Your task to perform on an android device: open a bookmark in the chrome app Image 0: 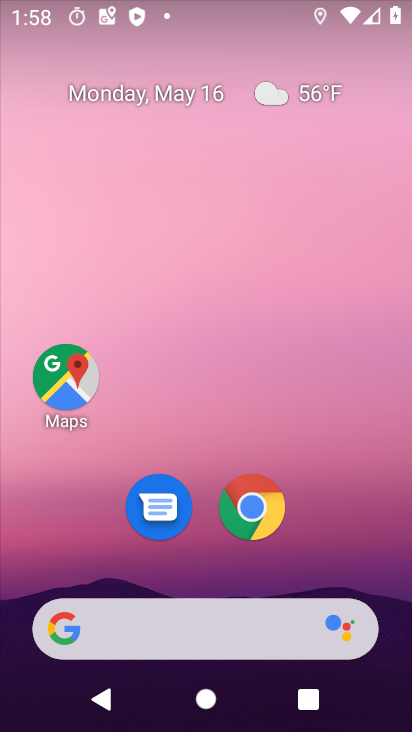
Step 0: click (257, 508)
Your task to perform on an android device: open a bookmark in the chrome app Image 1: 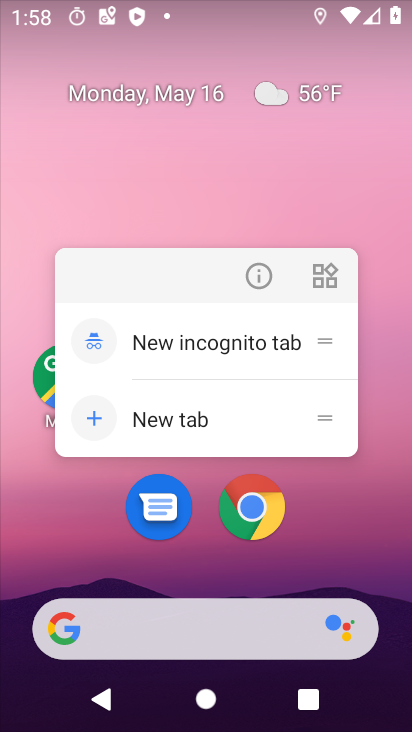
Step 1: click (257, 508)
Your task to perform on an android device: open a bookmark in the chrome app Image 2: 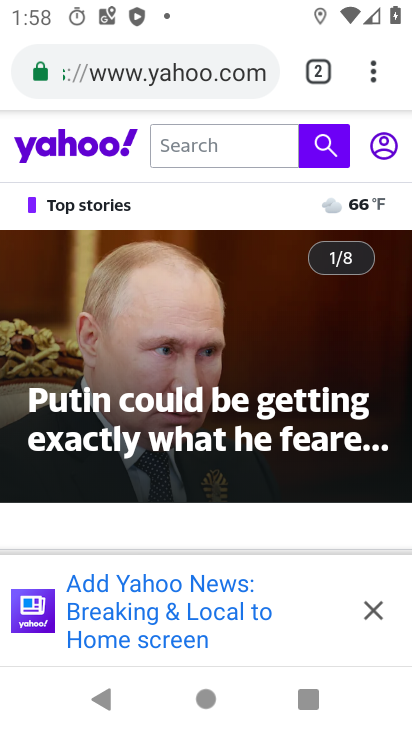
Step 2: click (366, 72)
Your task to perform on an android device: open a bookmark in the chrome app Image 3: 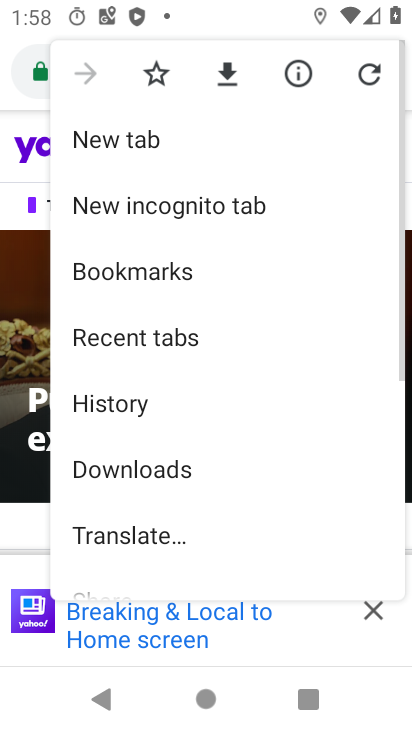
Step 3: click (234, 272)
Your task to perform on an android device: open a bookmark in the chrome app Image 4: 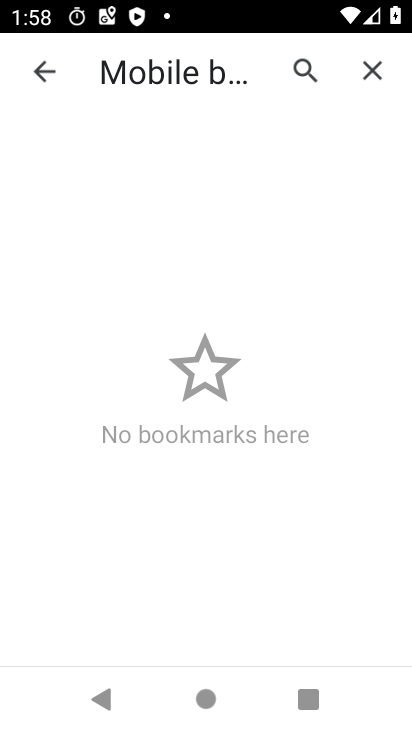
Step 4: task complete